Your task to perform on an android device: Toggle the flashlight Image 0: 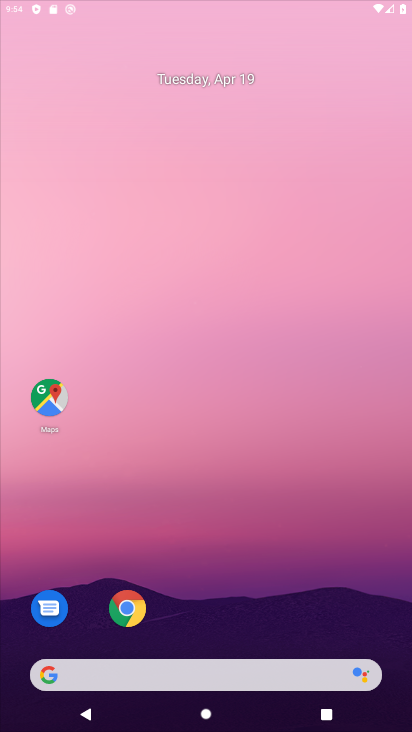
Step 0: drag from (196, 544) to (243, 17)
Your task to perform on an android device: Toggle the flashlight Image 1: 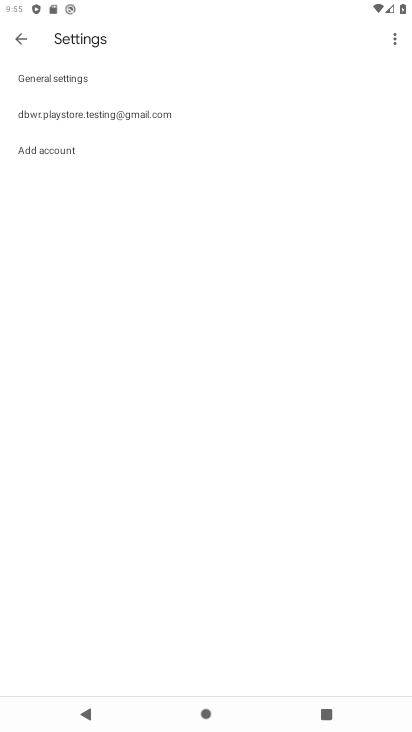
Step 1: press back button
Your task to perform on an android device: Toggle the flashlight Image 2: 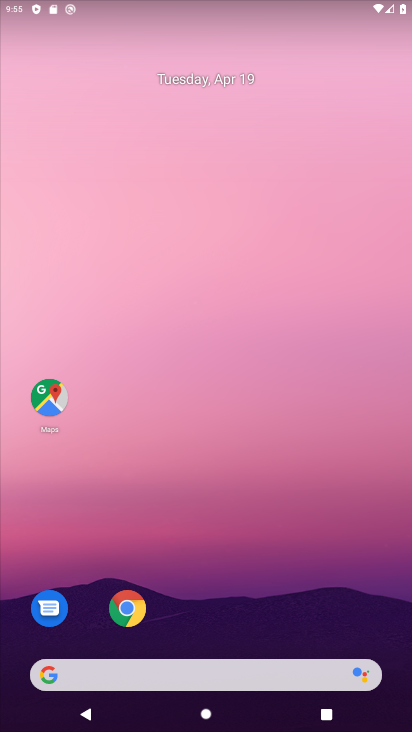
Step 2: click (168, 463)
Your task to perform on an android device: Toggle the flashlight Image 3: 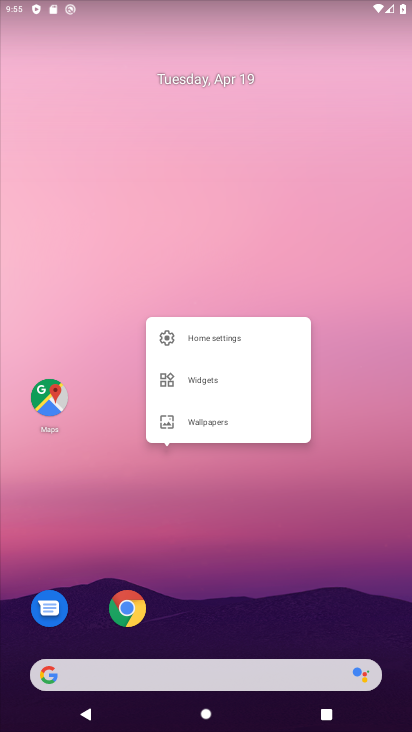
Step 3: click (367, 200)
Your task to perform on an android device: Toggle the flashlight Image 4: 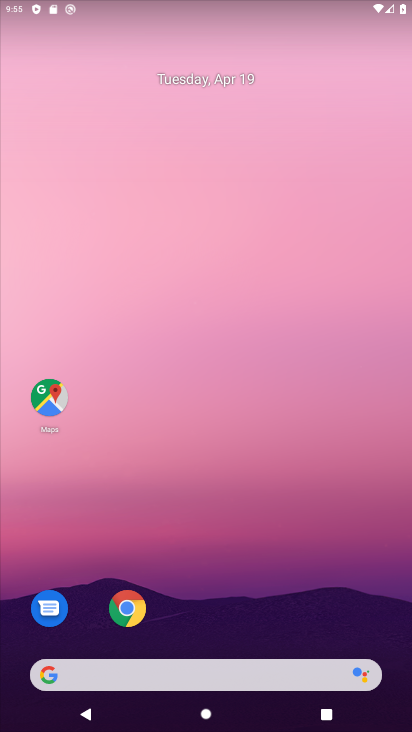
Step 4: drag from (267, 431) to (264, 643)
Your task to perform on an android device: Toggle the flashlight Image 5: 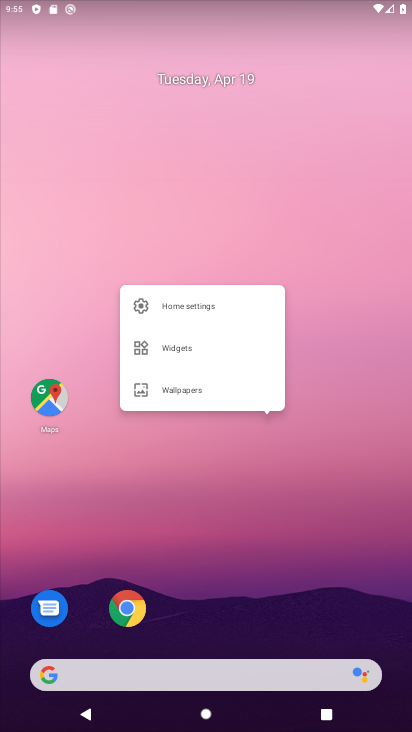
Step 5: click (350, 219)
Your task to perform on an android device: Toggle the flashlight Image 6: 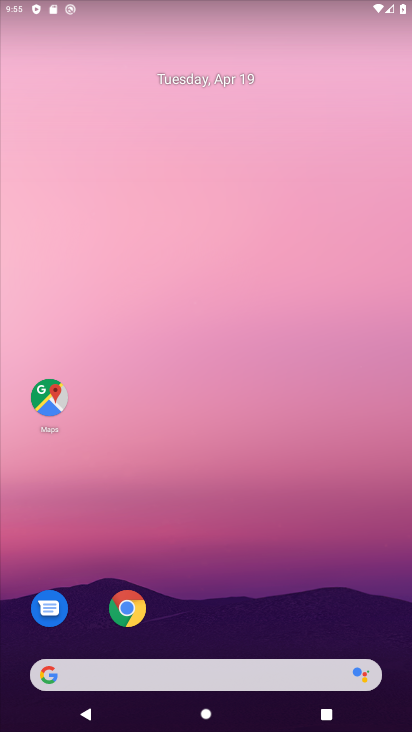
Step 6: task complete